Your task to perform on an android device: What's on my calendar today? Image 0: 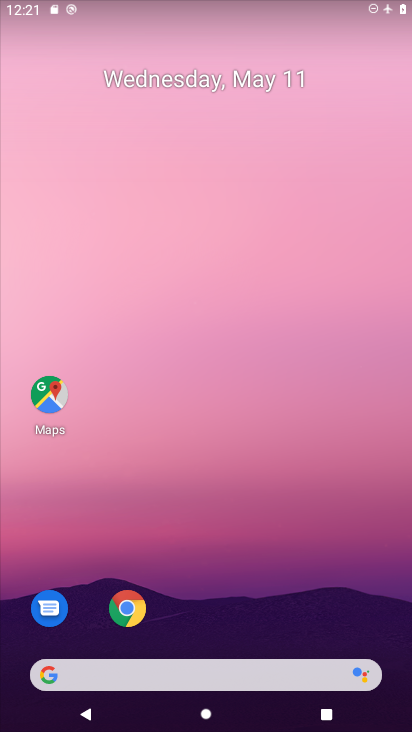
Step 0: drag from (254, 575) to (247, 45)
Your task to perform on an android device: What's on my calendar today? Image 1: 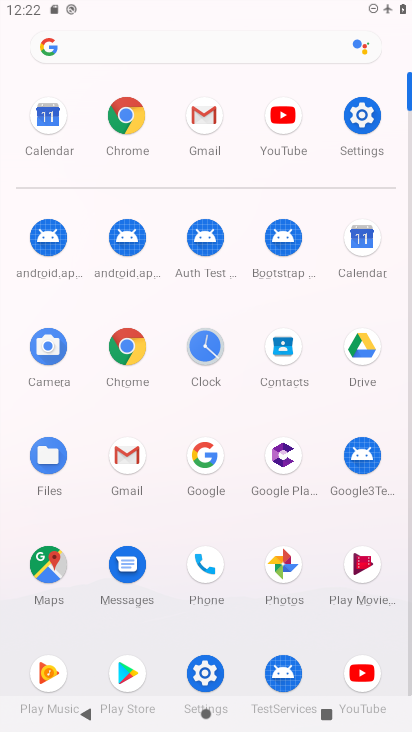
Step 1: click (45, 116)
Your task to perform on an android device: What's on my calendar today? Image 2: 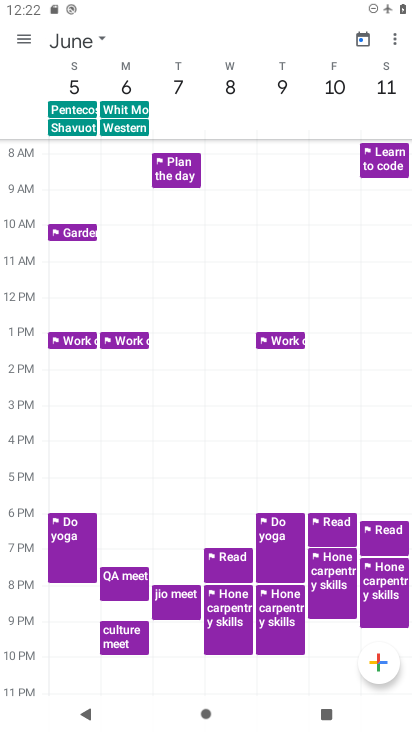
Step 2: click (26, 40)
Your task to perform on an android device: What's on my calendar today? Image 3: 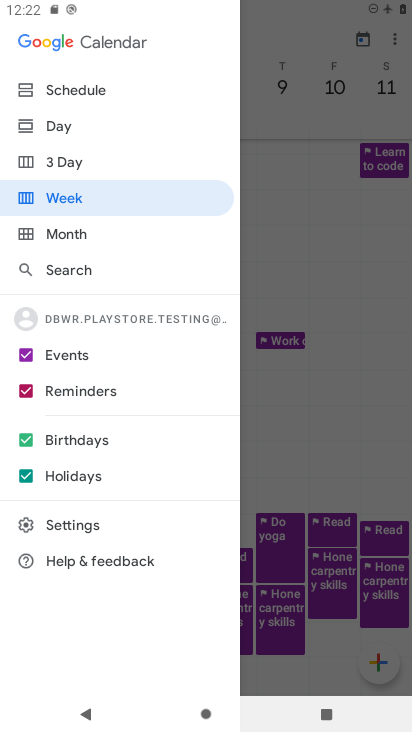
Step 3: click (66, 232)
Your task to perform on an android device: What's on my calendar today? Image 4: 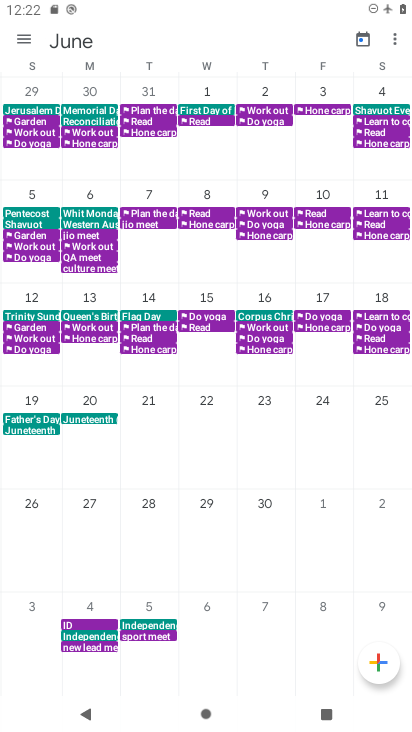
Step 4: drag from (61, 289) to (410, 318)
Your task to perform on an android device: What's on my calendar today? Image 5: 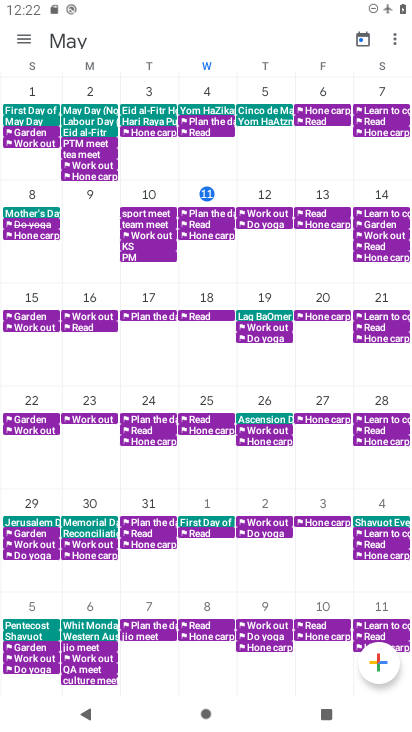
Step 5: click (206, 219)
Your task to perform on an android device: What's on my calendar today? Image 6: 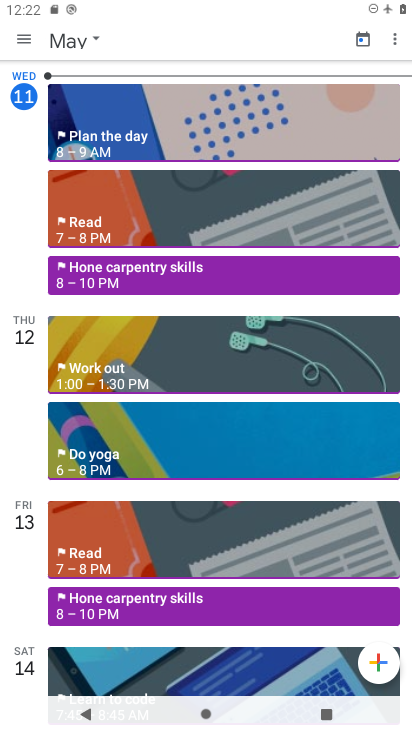
Step 6: task complete